Your task to perform on an android device: check the backup settings in the google photos Image 0: 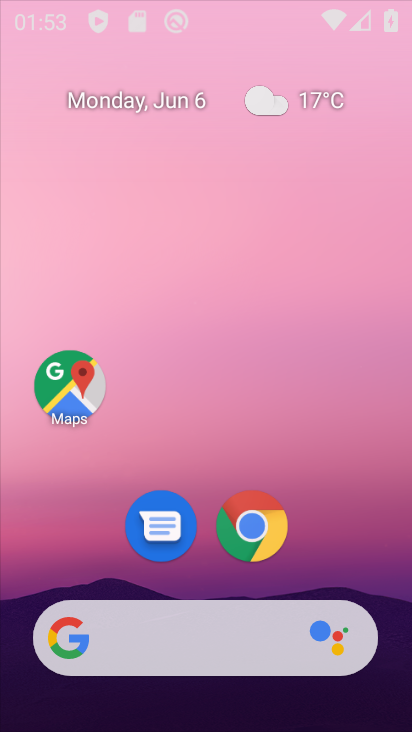
Step 0: press home button
Your task to perform on an android device: check the backup settings in the google photos Image 1: 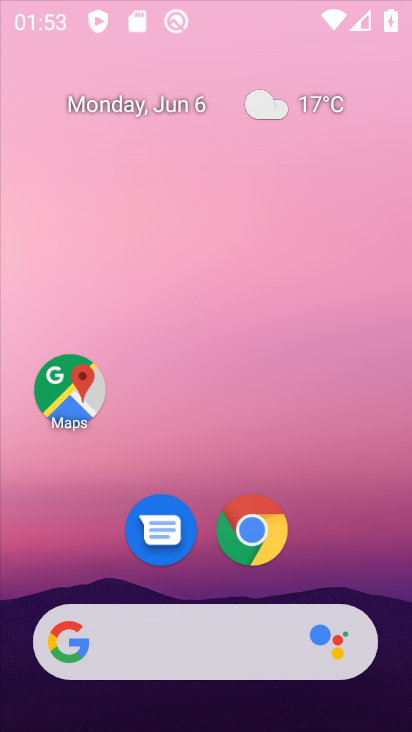
Step 1: drag from (321, 553) to (300, 335)
Your task to perform on an android device: check the backup settings in the google photos Image 2: 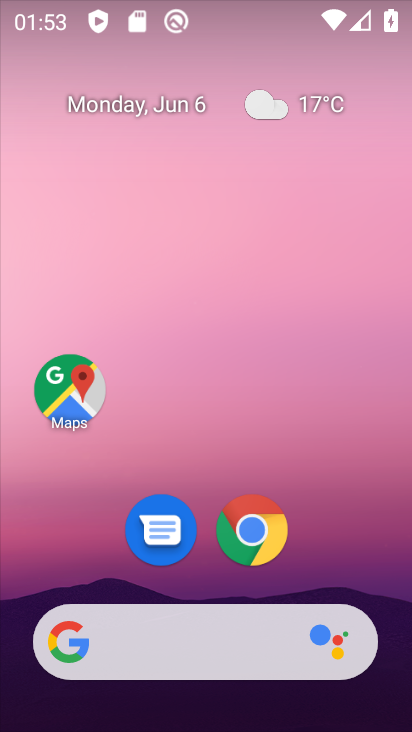
Step 2: drag from (228, 525) to (230, 245)
Your task to perform on an android device: check the backup settings in the google photos Image 3: 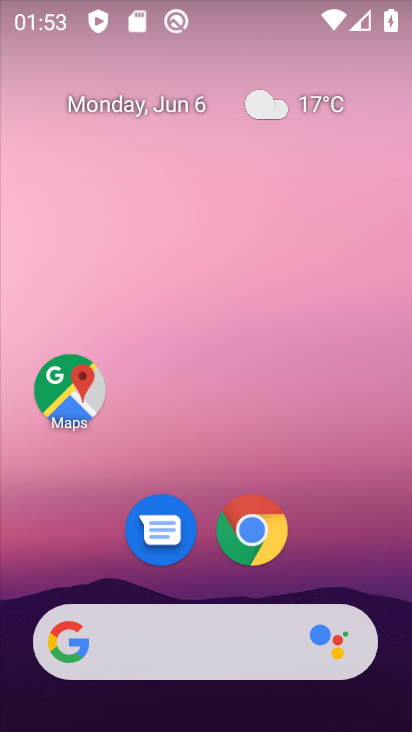
Step 3: drag from (268, 549) to (247, 120)
Your task to perform on an android device: check the backup settings in the google photos Image 4: 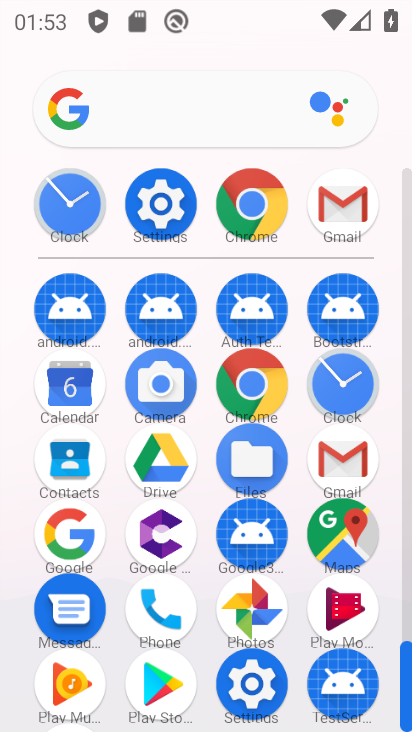
Step 4: click (254, 599)
Your task to perform on an android device: check the backup settings in the google photos Image 5: 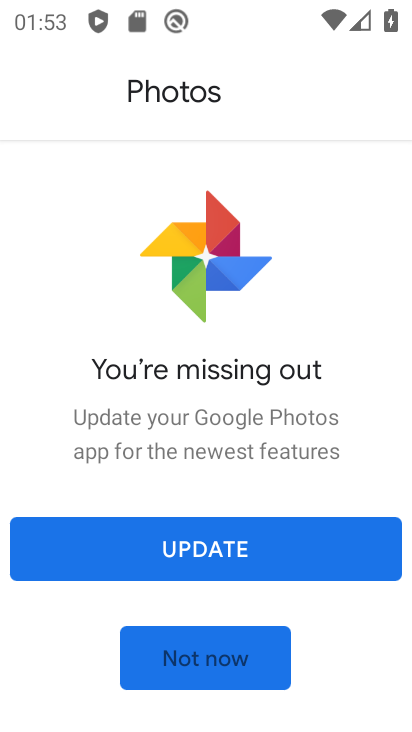
Step 5: click (247, 657)
Your task to perform on an android device: check the backup settings in the google photos Image 6: 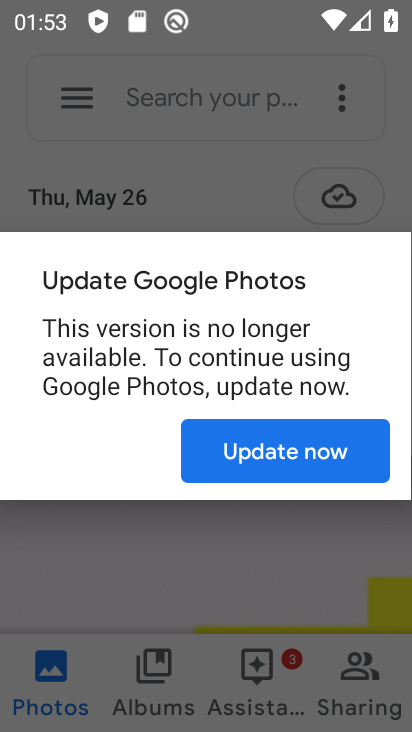
Step 6: click (269, 455)
Your task to perform on an android device: check the backup settings in the google photos Image 7: 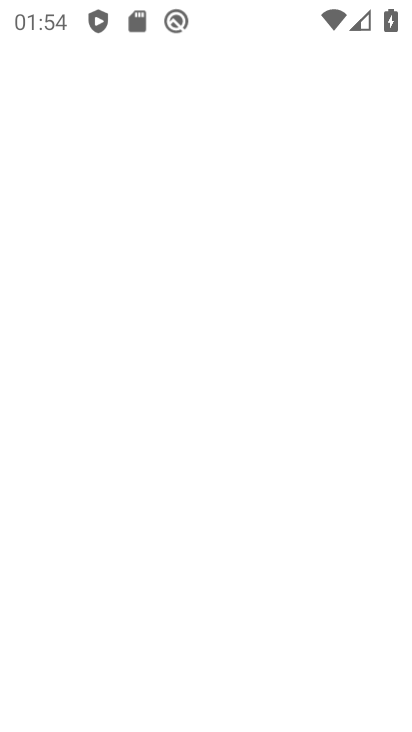
Step 7: press back button
Your task to perform on an android device: check the backup settings in the google photos Image 8: 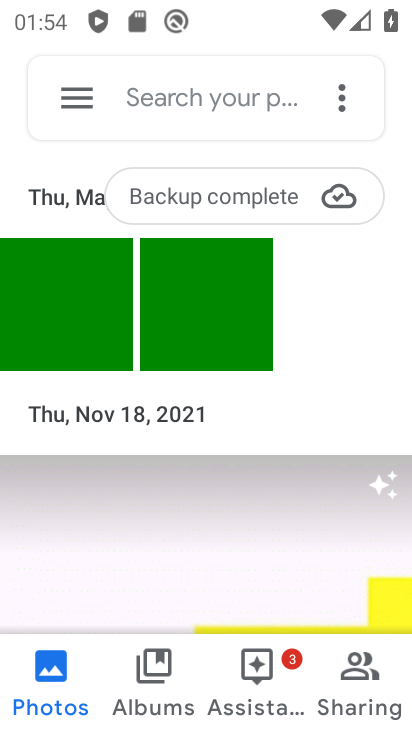
Step 8: click (73, 89)
Your task to perform on an android device: check the backup settings in the google photos Image 9: 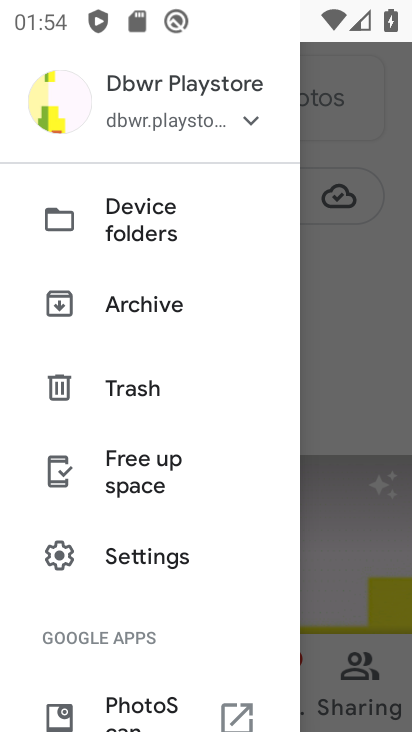
Step 9: click (178, 575)
Your task to perform on an android device: check the backup settings in the google photos Image 10: 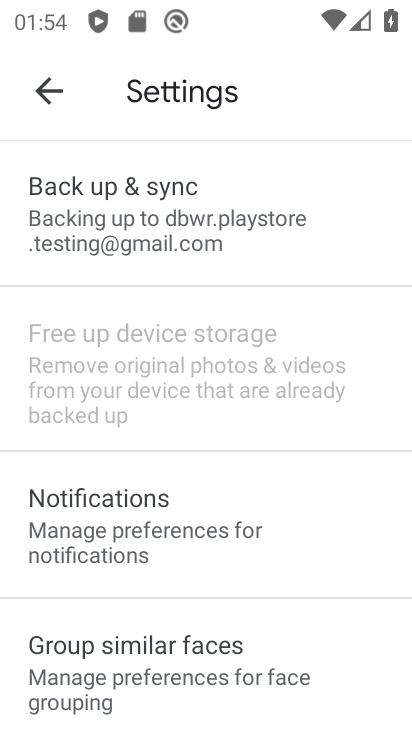
Step 10: click (134, 216)
Your task to perform on an android device: check the backup settings in the google photos Image 11: 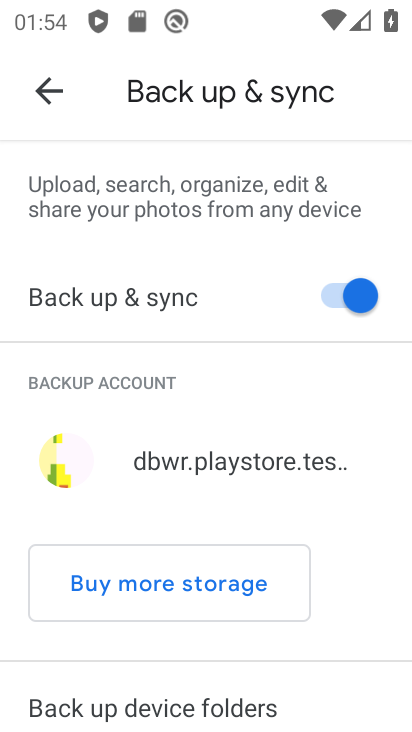
Step 11: task complete